Your task to perform on an android device: Go to eBay Image 0: 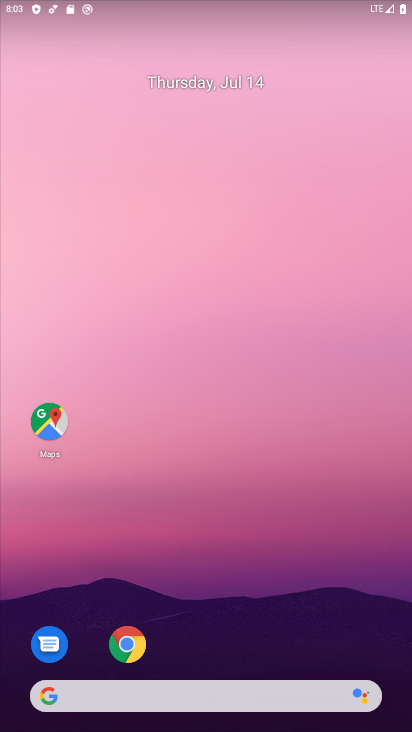
Step 0: click (203, 425)
Your task to perform on an android device: Go to eBay Image 1: 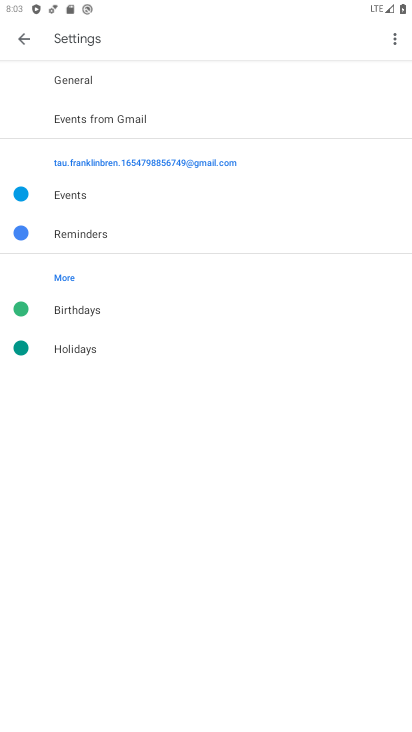
Step 1: drag from (222, 486) to (254, 313)
Your task to perform on an android device: Go to eBay Image 2: 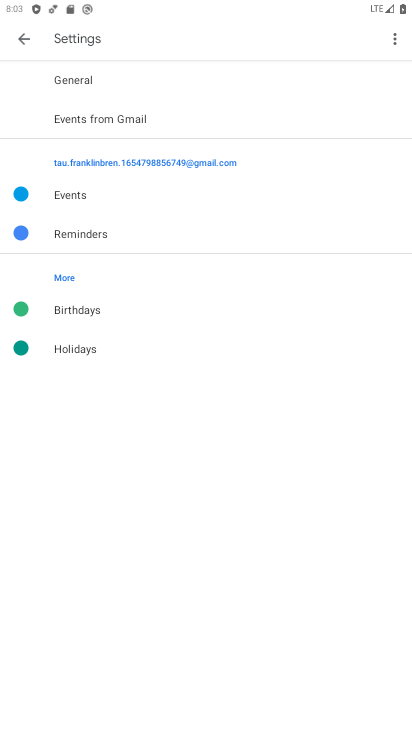
Step 2: drag from (117, 579) to (274, 338)
Your task to perform on an android device: Go to eBay Image 3: 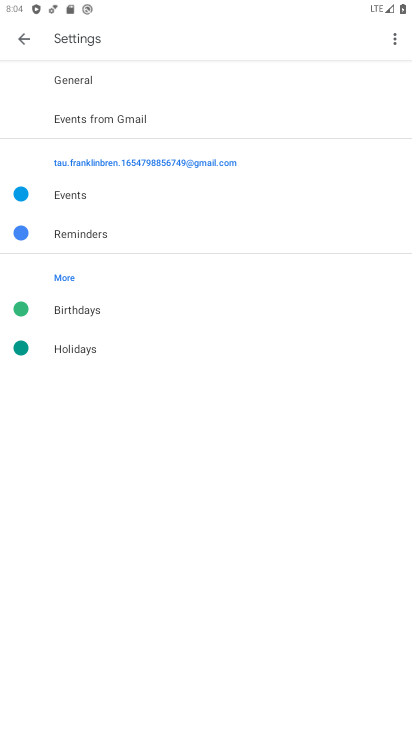
Step 3: drag from (248, 513) to (309, 377)
Your task to perform on an android device: Go to eBay Image 4: 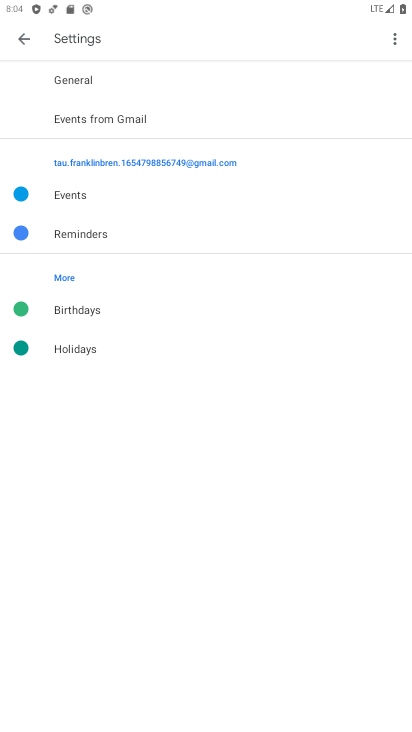
Step 4: press home button
Your task to perform on an android device: Go to eBay Image 5: 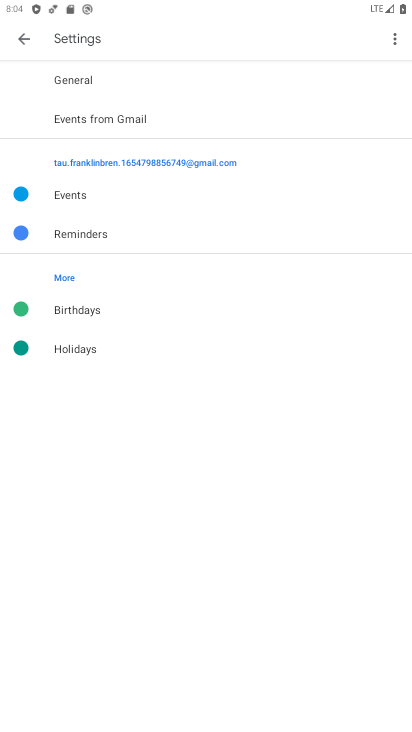
Step 5: drag from (203, 459) to (204, 248)
Your task to perform on an android device: Go to eBay Image 6: 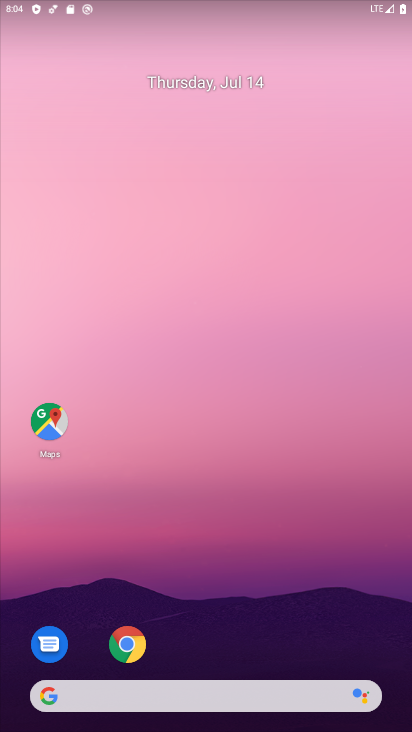
Step 6: drag from (244, 515) to (275, 287)
Your task to perform on an android device: Go to eBay Image 7: 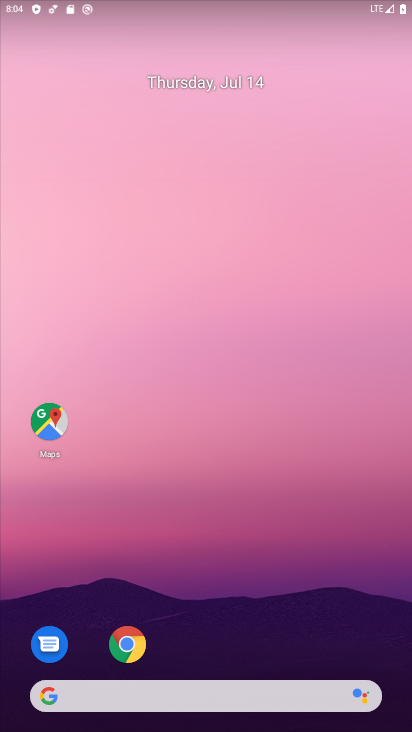
Step 7: drag from (228, 617) to (291, 131)
Your task to perform on an android device: Go to eBay Image 8: 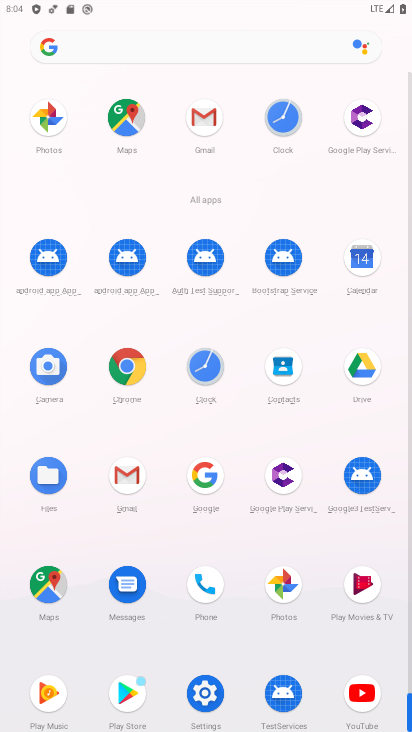
Step 8: drag from (183, 608) to (244, 191)
Your task to perform on an android device: Go to eBay Image 9: 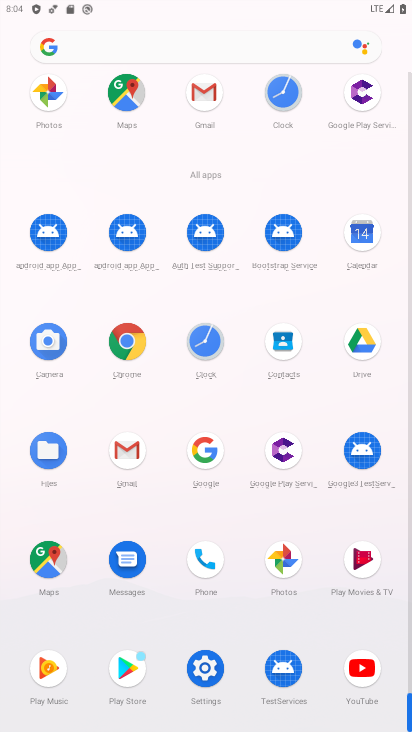
Step 9: click (190, 43)
Your task to perform on an android device: Go to eBay Image 10: 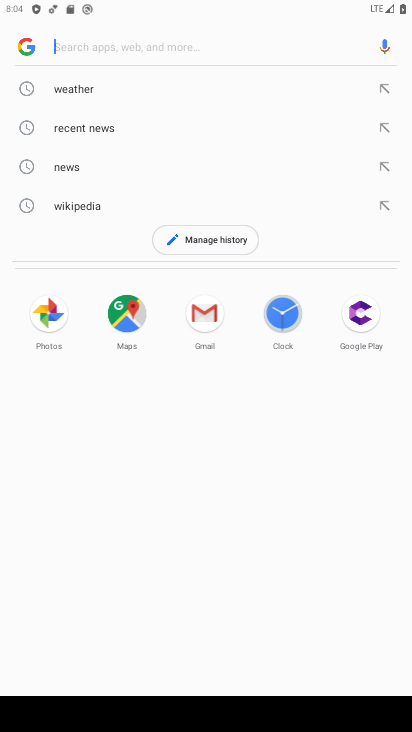
Step 10: type "ebay"
Your task to perform on an android device: Go to eBay Image 11: 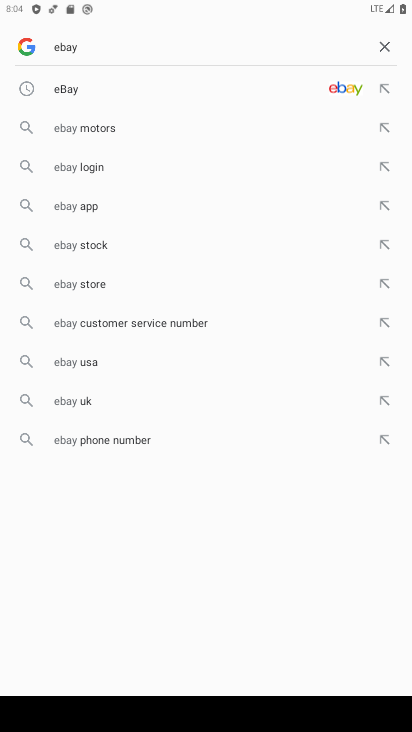
Step 11: click (290, 177)
Your task to perform on an android device: Go to eBay Image 12: 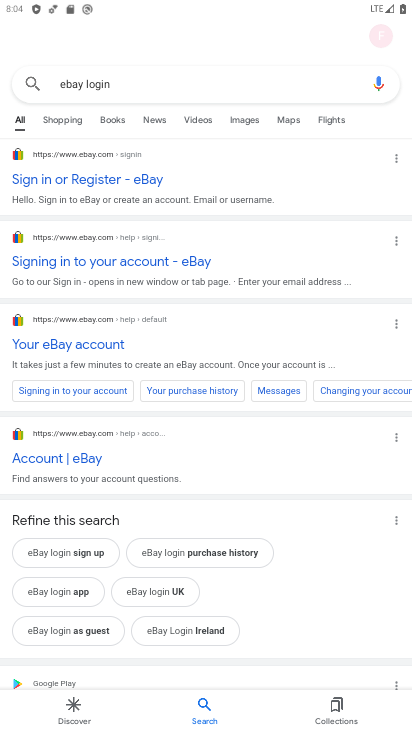
Step 12: drag from (160, 530) to (214, 293)
Your task to perform on an android device: Go to eBay Image 13: 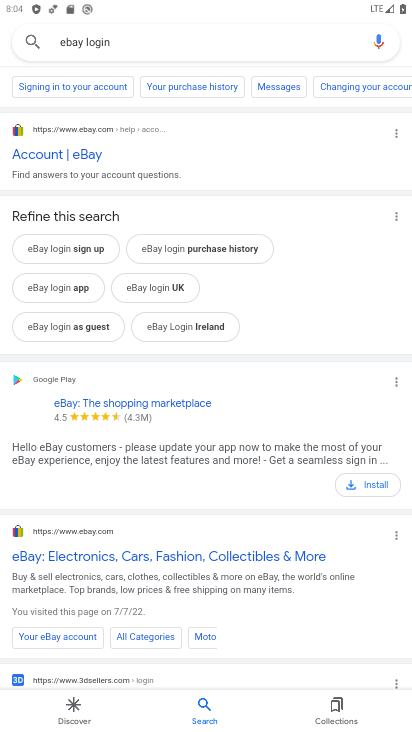
Step 13: drag from (224, 117) to (244, 610)
Your task to perform on an android device: Go to eBay Image 14: 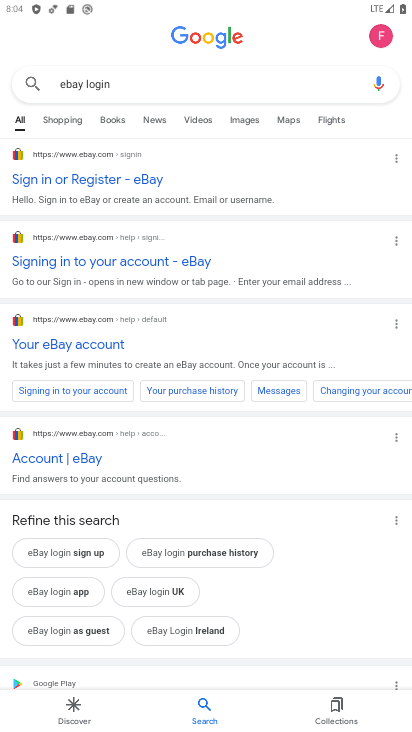
Step 14: click (71, 175)
Your task to perform on an android device: Go to eBay Image 15: 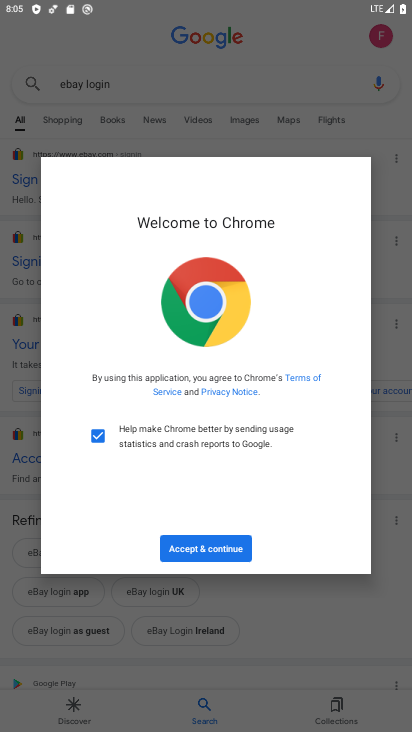
Step 15: click (206, 544)
Your task to perform on an android device: Go to eBay Image 16: 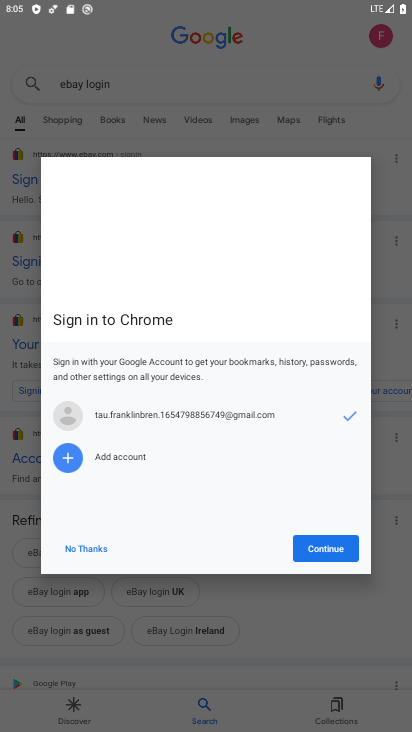
Step 16: click (322, 556)
Your task to perform on an android device: Go to eBay Image 17: 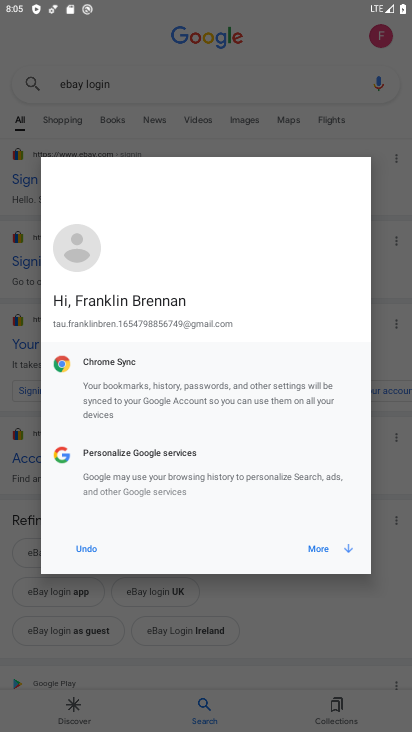
Step 17: click (322, 550)
Your task to perform on an android device: Go to eBay Image 18: 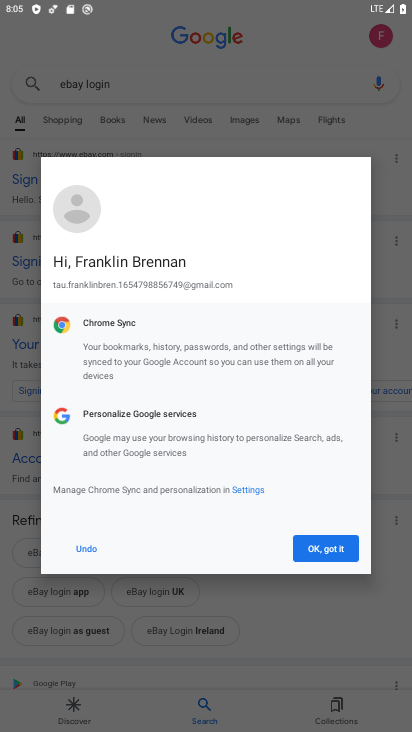
Step 18: click (309, 552)
Your task to perform on an android device: Go to eBay Image 19: 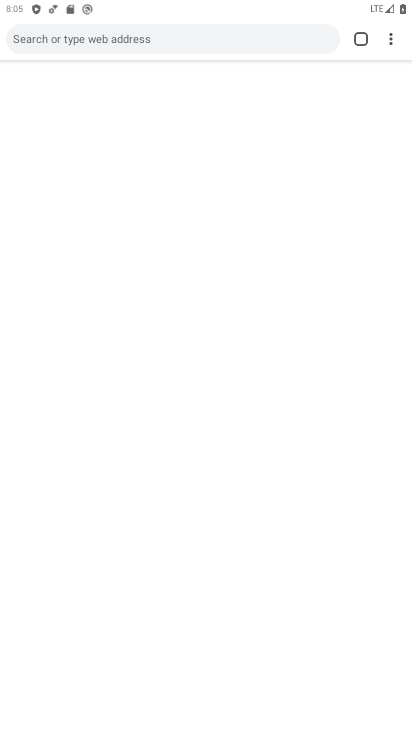
Step 19: task complete